Your task to perform on an android device: Open eBay Image 0: 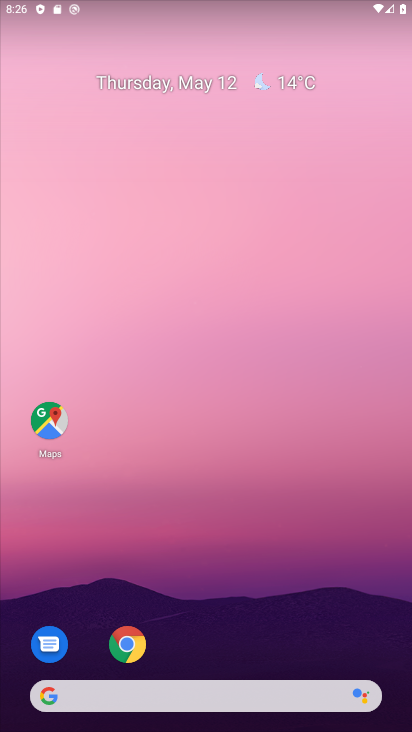
Step 0: drag from (308, 658) to (280, 230)
Your task to perform on an android device: Open eBay Image 1: 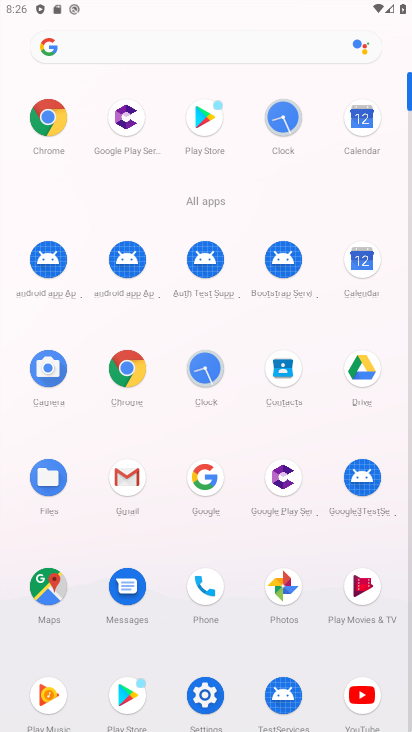
Step 1: click (117, 368)
Your task to perform on an android device: Open eBay Image 2: 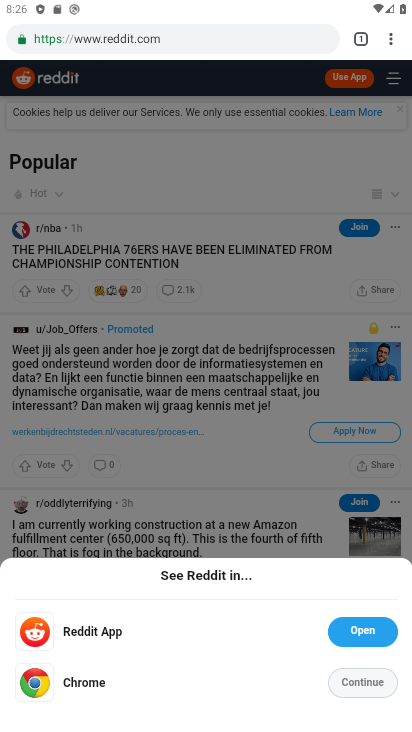
Step 2: click (124, 39)
Your task to perform on an android device: Open eBay Image 3: 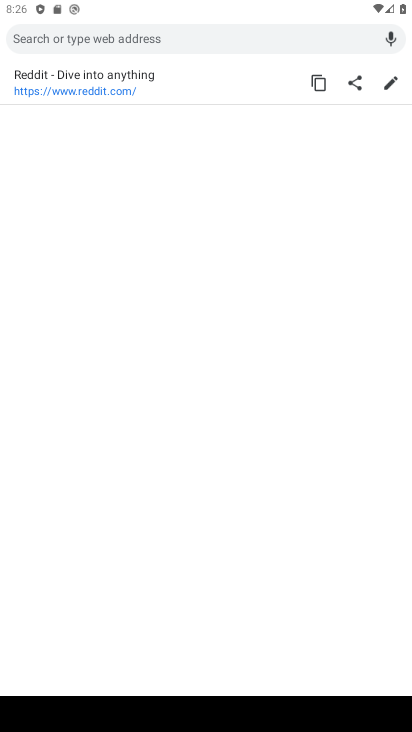
Step 3: type "ebay"
Your task to perform on an android device: Open eBay Image 4: 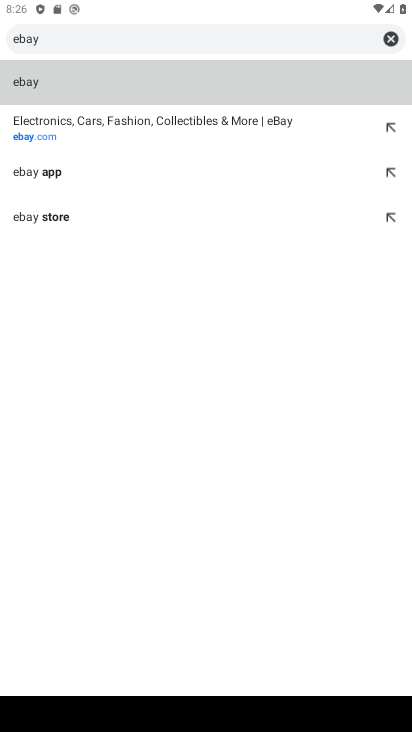
Step 4: click (50, 130)
Your task to perform on an android device: Open eBay Image 5: 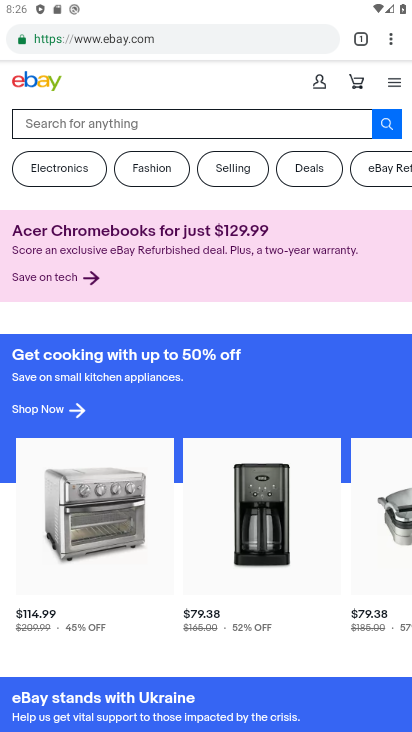
Step 5: task complete